Your task to perform on an android device: Go to privacy settings Image 0: 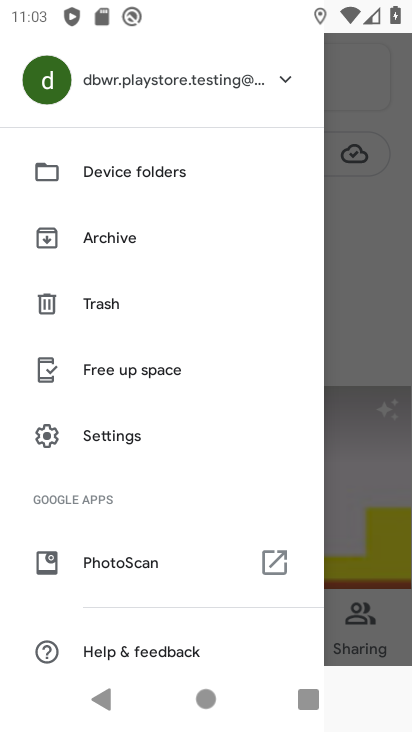
Step 0: press home button
Your task to perform on an android device: Go to privacy settings Image 1: 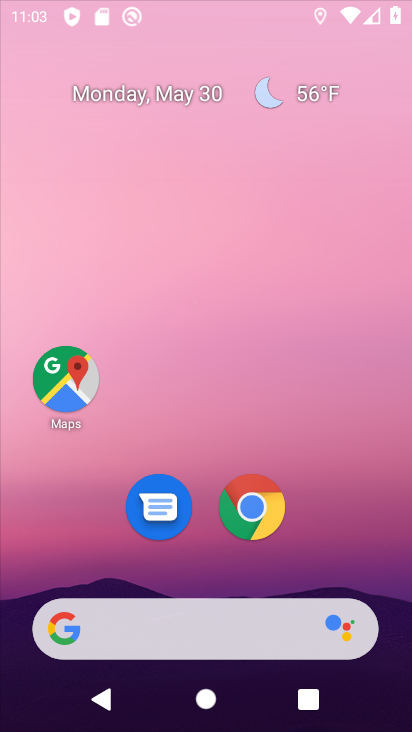
Step 1: drag from (162, 723) to (101, 43)
Your task to perform on an android device: Go to privacy settings Image 2: 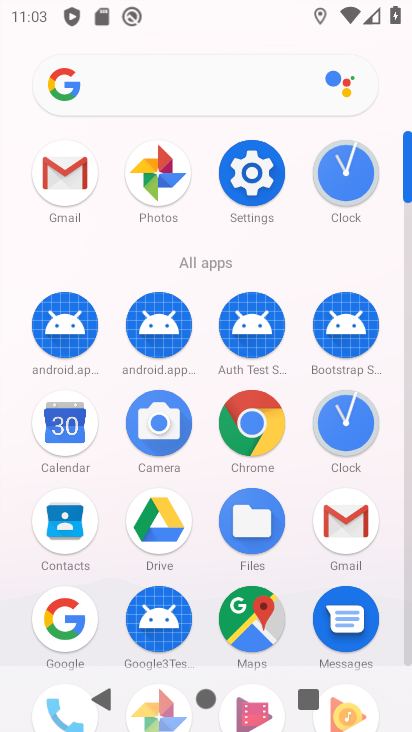
Step 2: click (266, 193)
Your task to perform on an android device: Go to privacy settings Image 3: 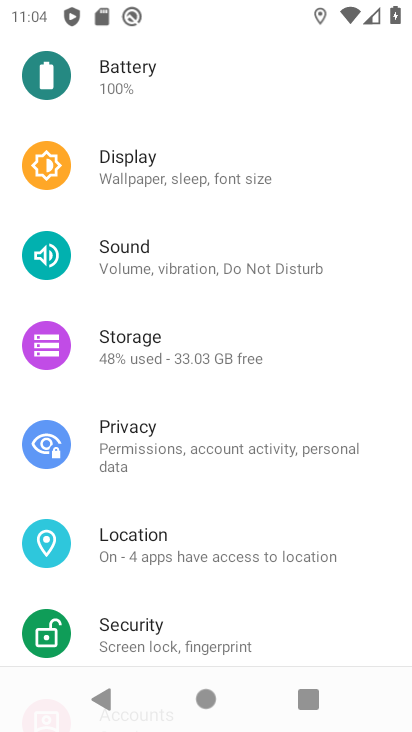
Step 3: drag from (280, 601) to (276, 108)
Your task to perform on an android device: Go to privacy settings Image 4: 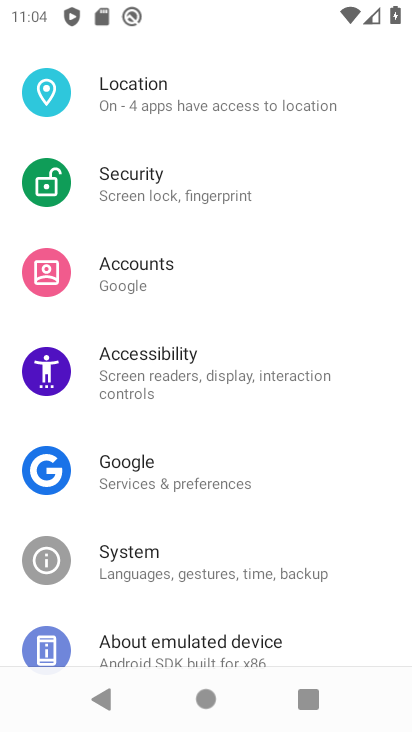
Step 4: drag from (260, 154) to (261, 535)
Your task to perform on an android device: Go to privacy settings Image 5: 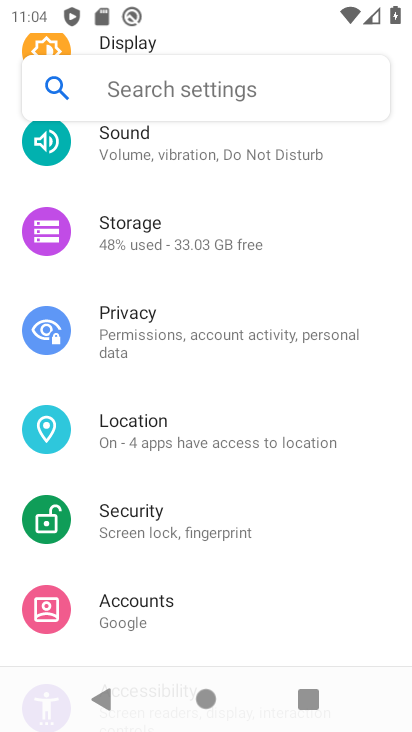
Step 5: click (198, 338)
Your task to perform on an android device: Go to privacy settings Image 6: 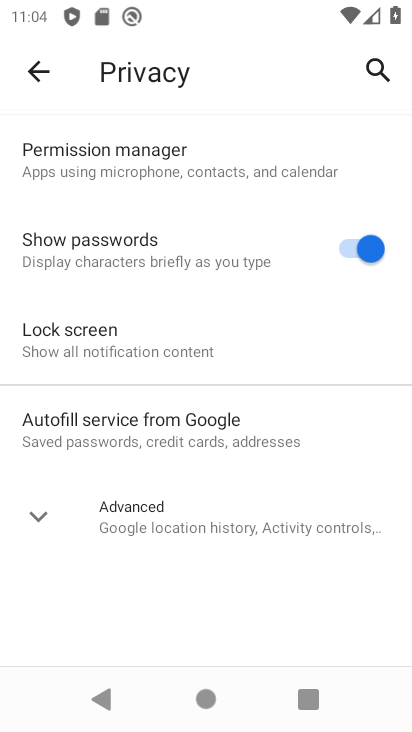
Step 6: task complete